Your task to perform on an android device: all mails in gmail Image 0: 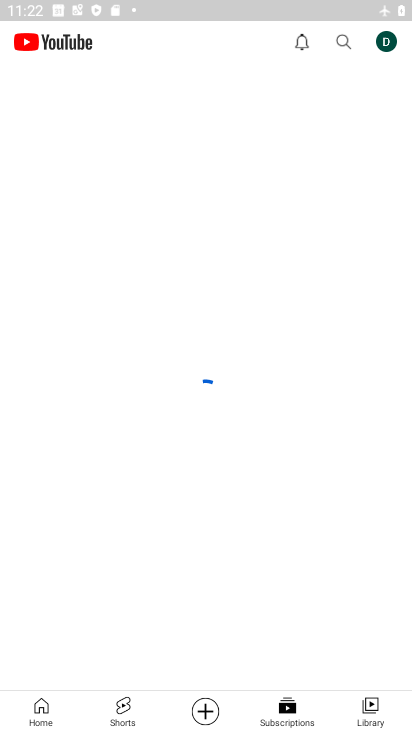
Step 0: press home button
Your task to perform on an android device: all mails in gmail Image 1: 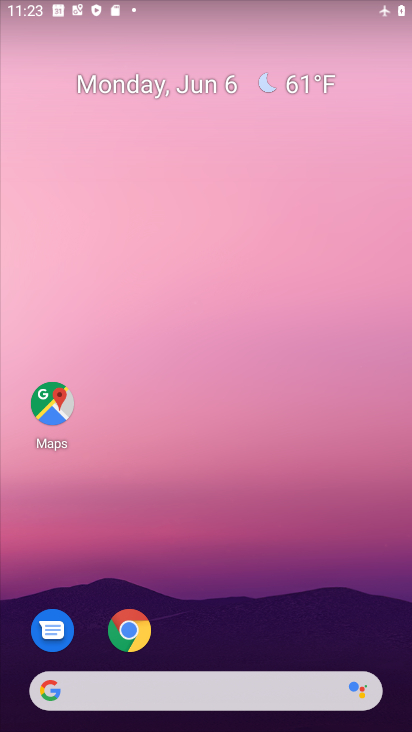
Step 1: drag from (314, 603) to (316, 86)
Your task to perform on an android device: all mails in gmail Image 2: 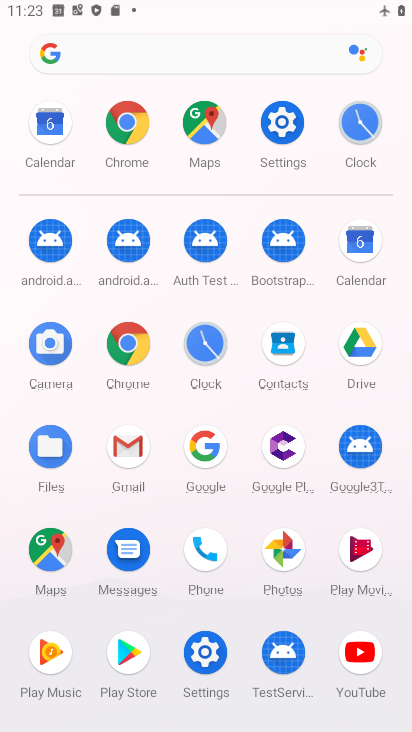
Step 2: click (118, 456)
Your task to perform on an android device: all mails in gmail Image 3: 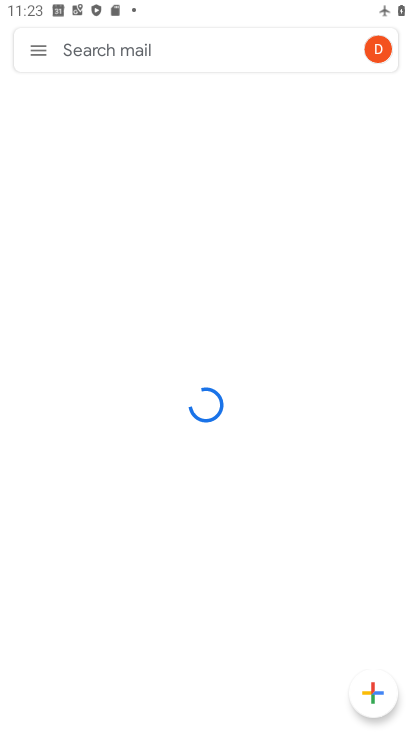
Step 3: click (35, 52)
Your task to perform on an android device: all mails in gmail Image 4: 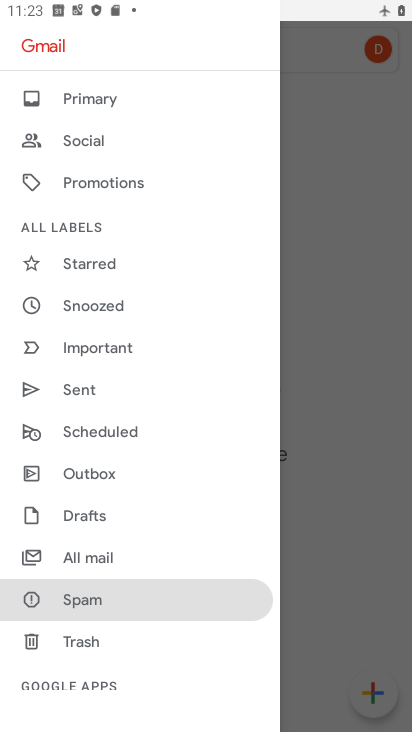
Step 4: click (128, 549)
Your task to perform on an android device: all mails in gmail Image 5: 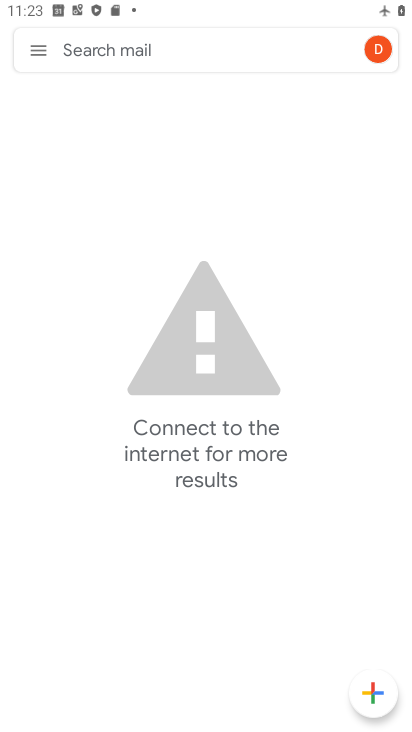
Step 5: task complete